Your task to perform on an android device: toggle pop-ups in chrome Image 0: 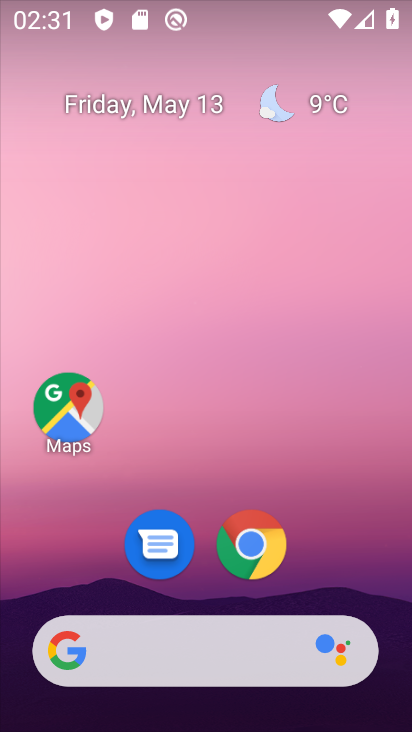
Step 0: drag from (313, 508) to (36, 55)
Your task to perform on an android device: toggle pop-ups in chrome Image 1: 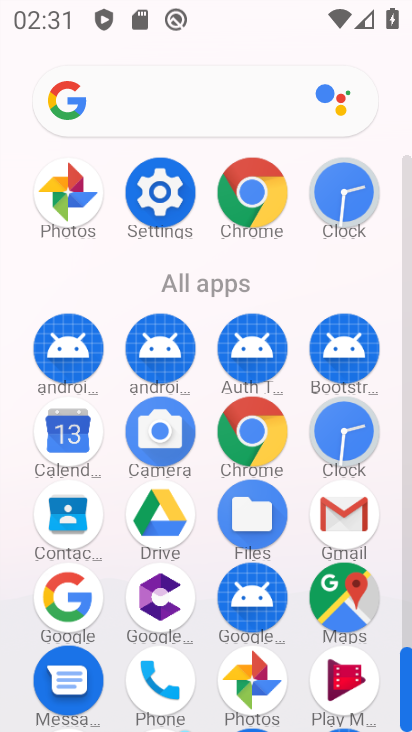
Step 1: click (252, 193)
Your task to perform on an android device: toggle pop-ups in chrome Image 2: 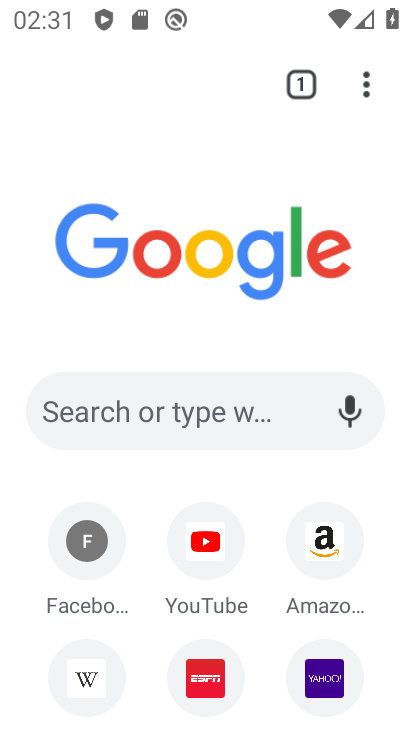
Step 2: drag from (366, 84) to (177, 585)
Your task to perform on an android device: toggle pop-ups in chrome Image 3: 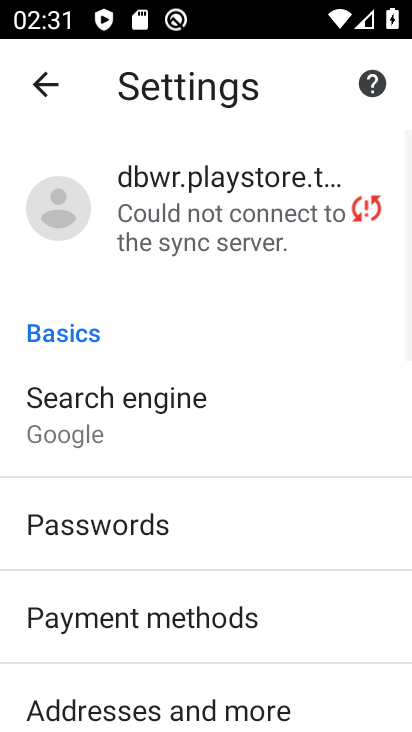
Step 3: drag from (246, 525) to (280, 109)
Your task to perform on an android device: toggle pop-ups in chrome Image 4: 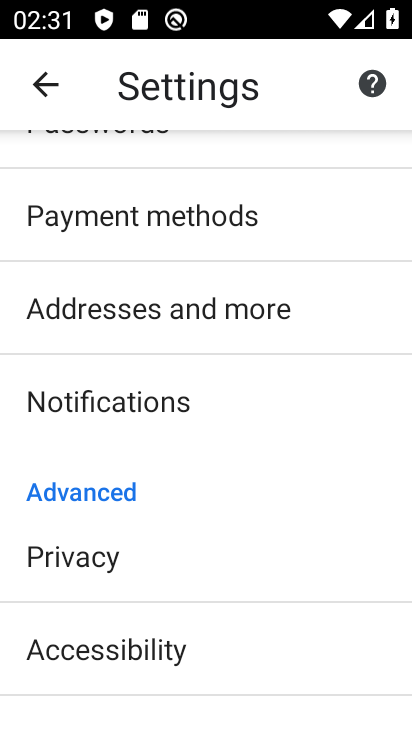
Step 4: drag from (242, 491) to (257, 193)
Your task to perform on an android device: toggle pop-ups in chrome Image 5: 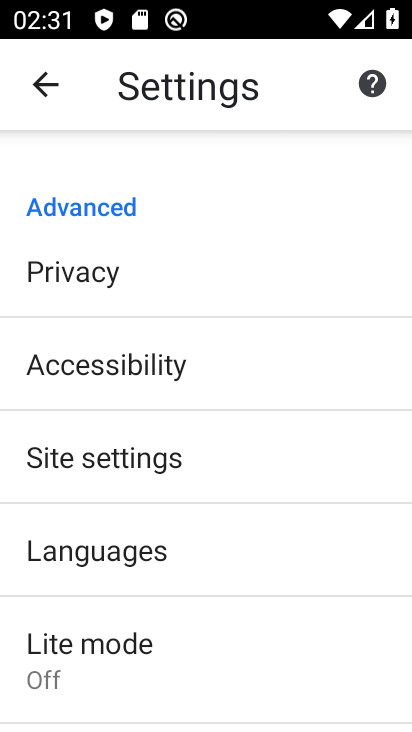
Step 5: drag from (291, 557) to (281, 206)
Your task to perform on an android device: toggle pop-ups in chrome Image 6: 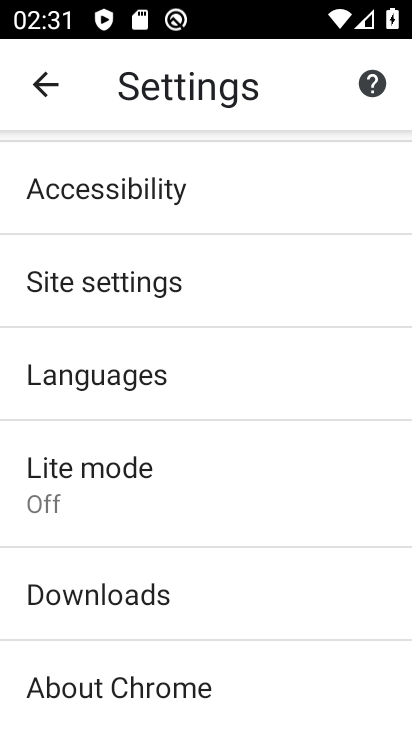
Step 6: drag from (258, 595) to (273, 167)
Your task to perform on an android device: toggle pop-ups in chrome Image 7: 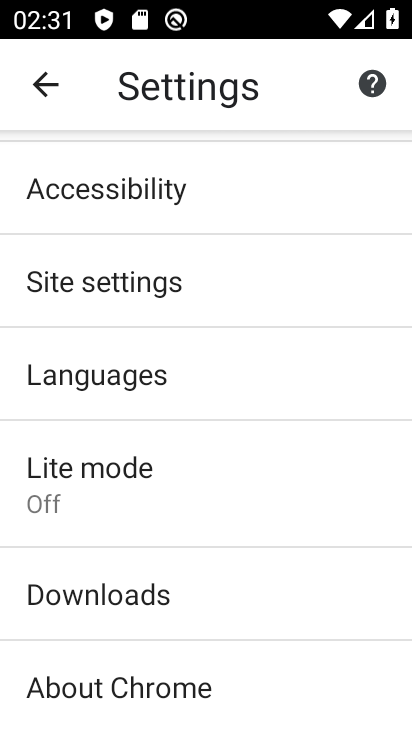
Step 7: drag from (253, 546) to (279, 201)
Your task to perform on an android device: toggle pop-ups in chrome Image 8: 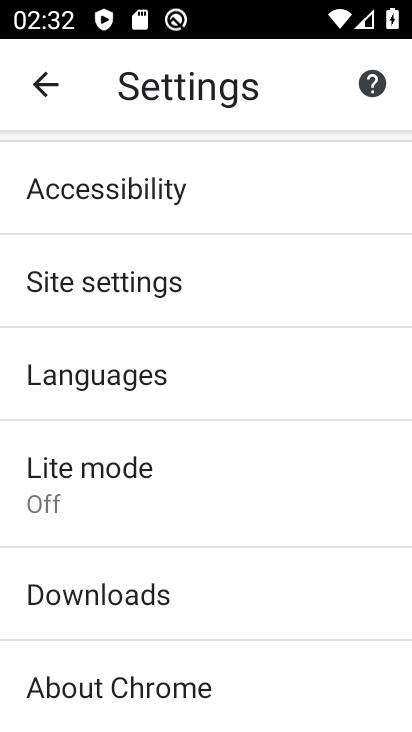
Step 8: click (152, 290)
Your task to perform on an android device: toggle pop-ups in chrome Image 9: 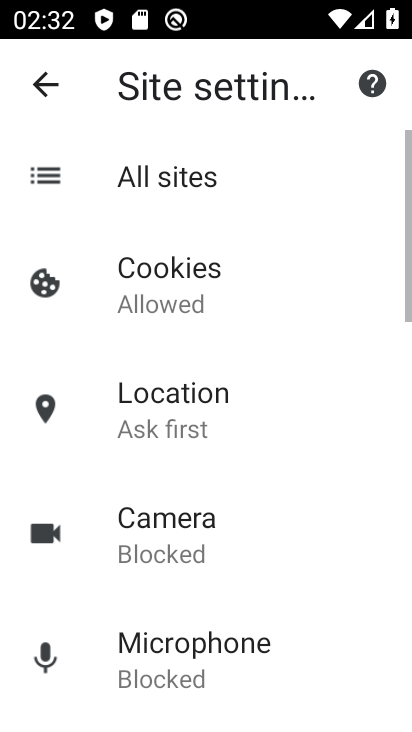
Step 9: drag from (272, 547) to (280, 170)
Your task to perform on an android device: toggle pop-ups in chrome Image 10: 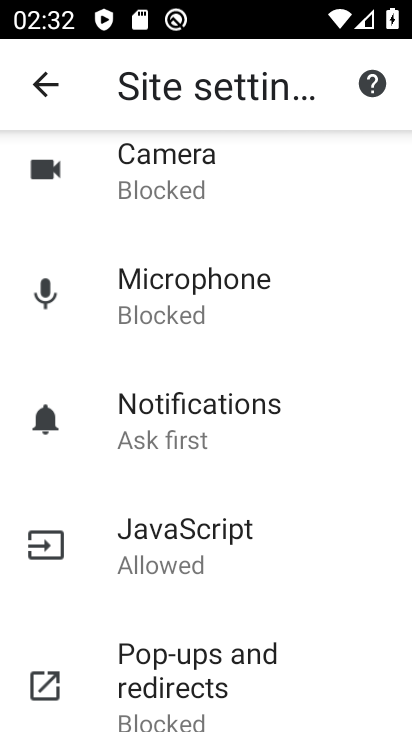
Step 10: click (232, 670)
Your task to perform on an android device: toggle pop-ups in chrome Image 11: 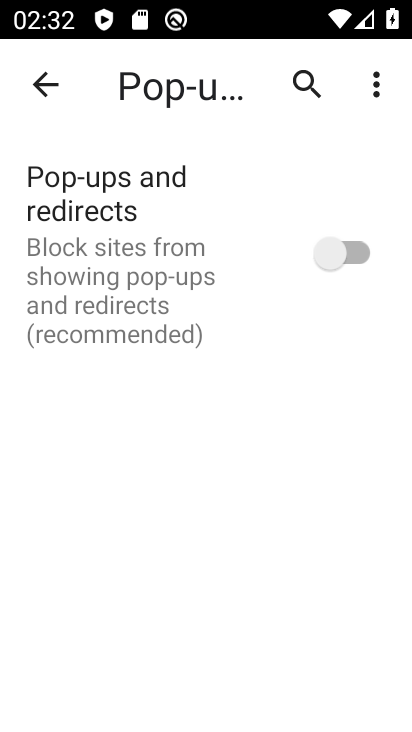
Step 11: click (356, 259)
Your task to perform on an android device: toggle pop-ups in chrome Image 12: 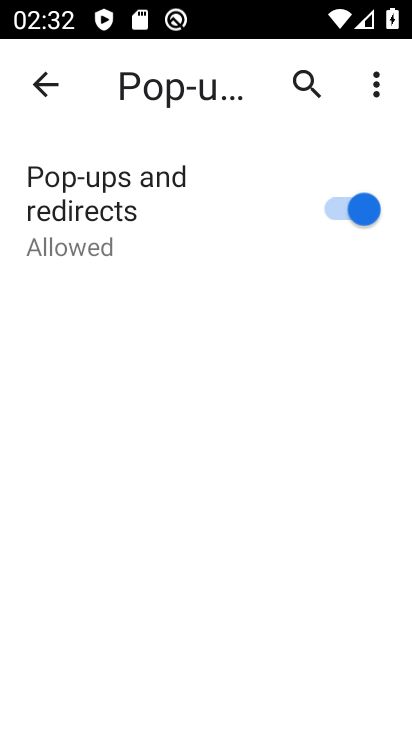
Step 12: task complete